Your task to perform on an android device: turn off smart reply in the gmail app Image 0: 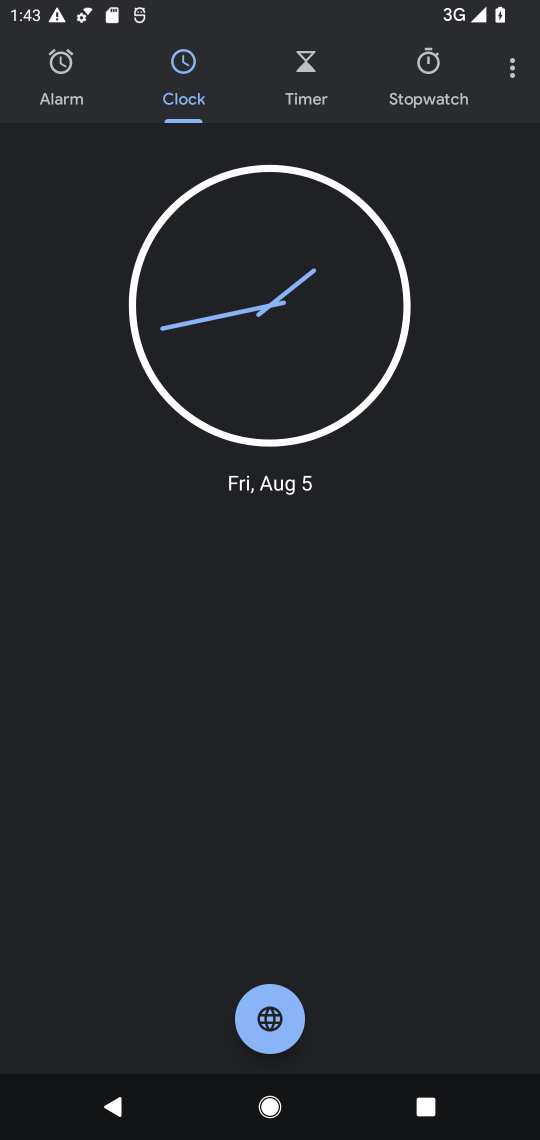
Step 0: press home button
Your task to perform on an android device: turn off smart reply in the gmail app Image 1: 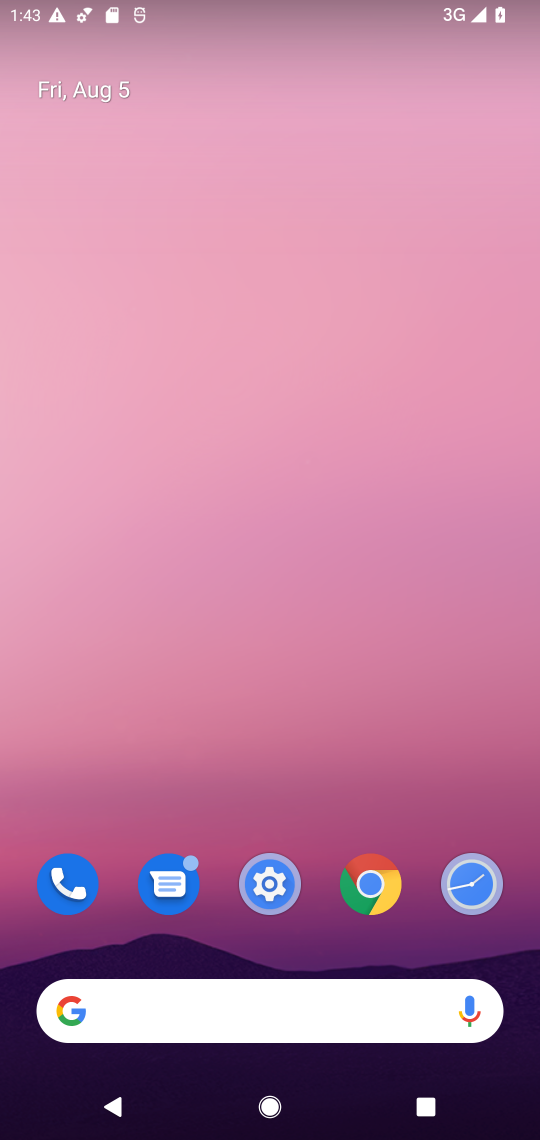
Step 1: drag from (466, 1007) to (423, 33)
Your task to perform on an android device: turn off smart reply in the gmail app Image 2: 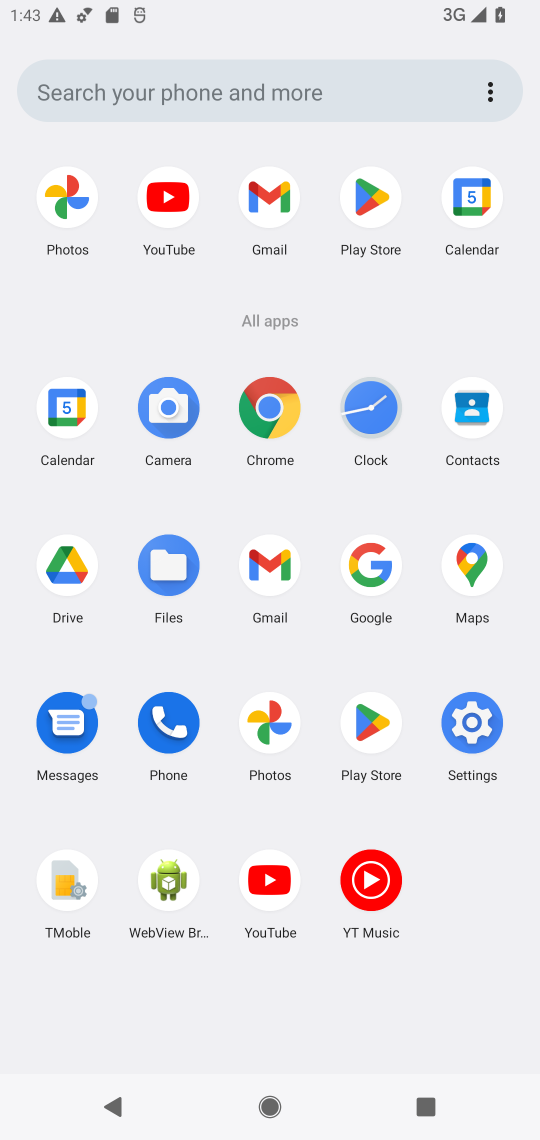
Step 2: click (289, 567)
Your task to perform on an android device: turn off smart reply in the gmail app Image 3: 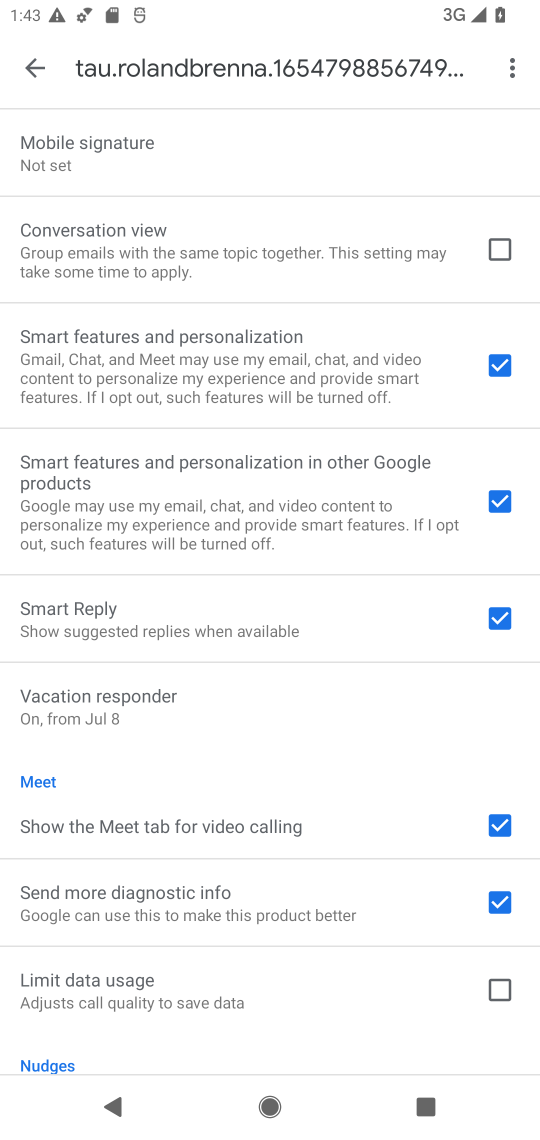
Step 3: click (277, 613)
Your task to perform on an android device: turn off smart reply in the gmail app Image 4: 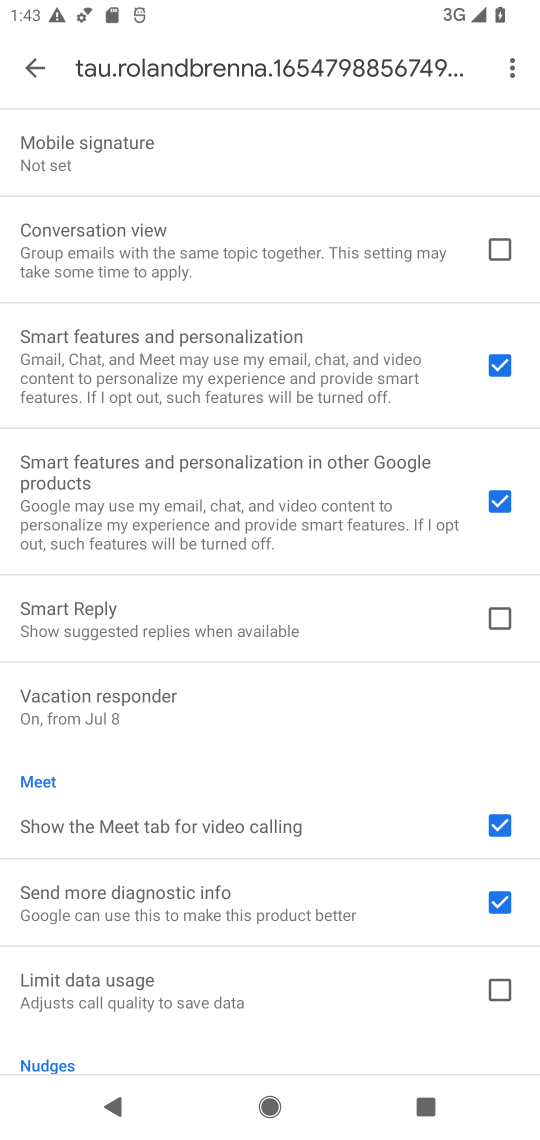
Step 4: task complete